Your task to perform on an android device: set an alarm Image 0: 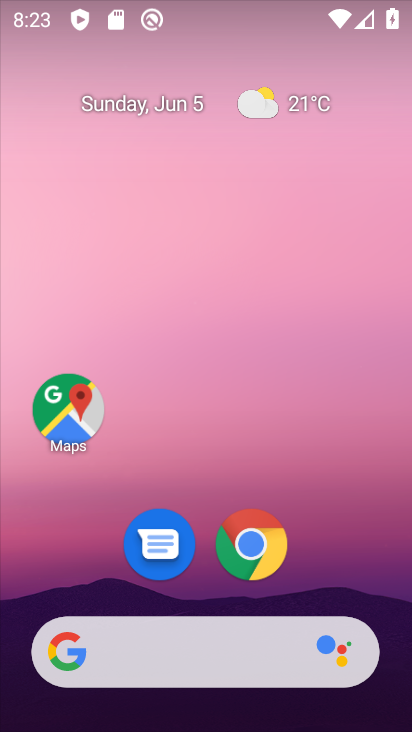
Step 0: drag from (395, 673) to (402, 137)
Your task to perform on an android device: set an alarm Image 1: 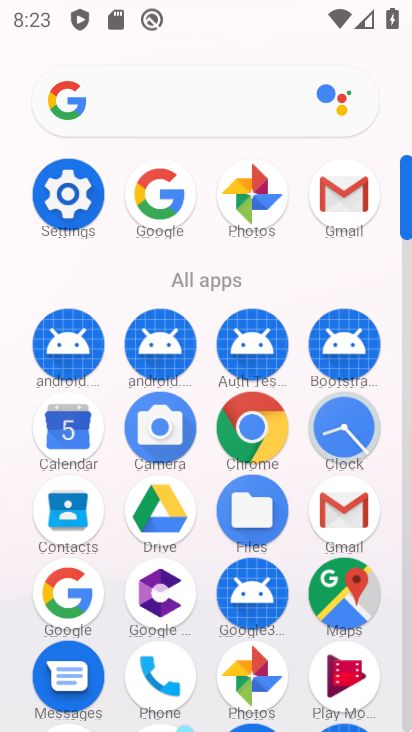
Step 1: click (334, 433)
Your task to perform on an android device: set an alarm Image 2: 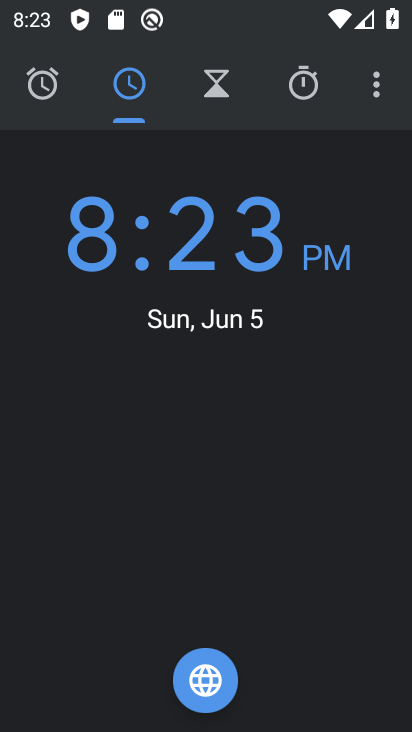
Step 2: click (376, 86)
Your task to perform on an android device: set an alarm Image 3: 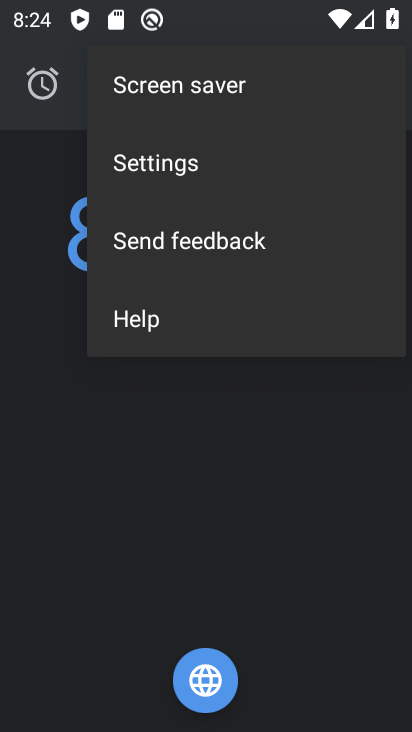
Step 3: click (173, 158)
Your task to perform on an android device: set an alarm Image 4: 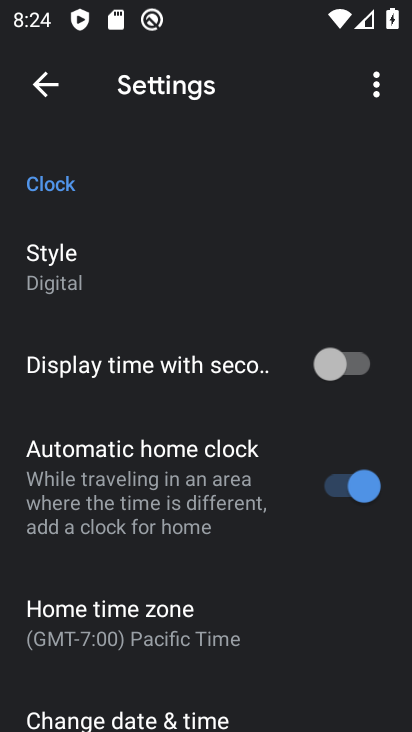
Step 4: press back button
Your task to perform on an android device: set an alarm Image 5: 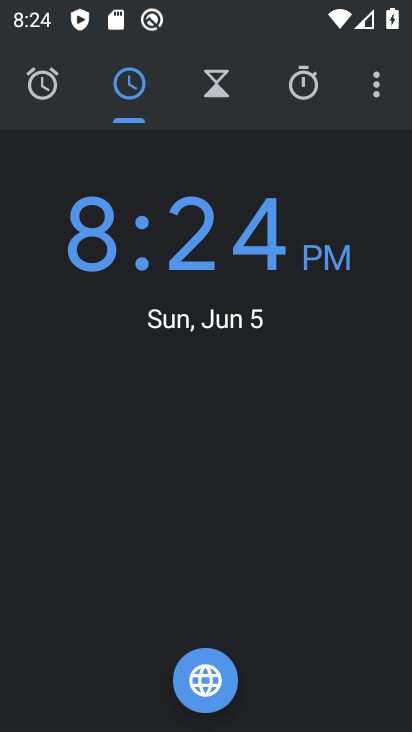
Step 5: click (46, 87)
Your task to perform on an android device: set an alarm Image 6: 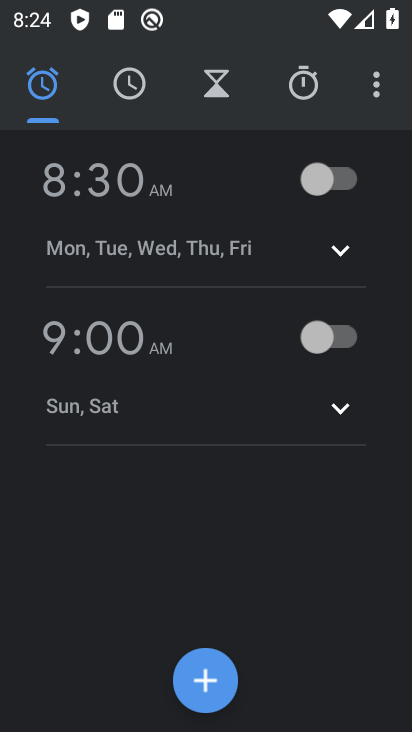
Step 6: click (341, 175)
Your task to perform on an android device: set an alarm Image 7: 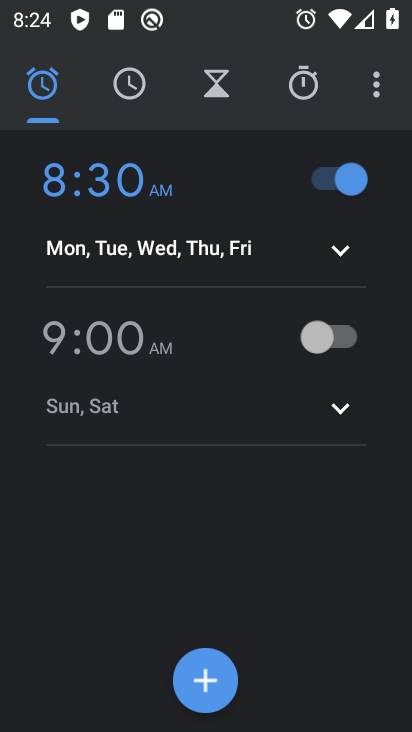
Step 7: task complete